Your task to perform on an android device: turn off data saver in the chrome app Image 0: 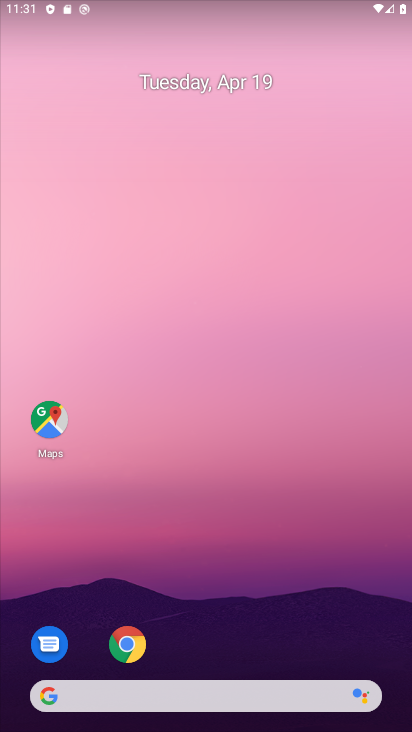
Step 0: click (125, 646)
Your task to perform on an android device: turn off data saver in the chrome app Image 1: 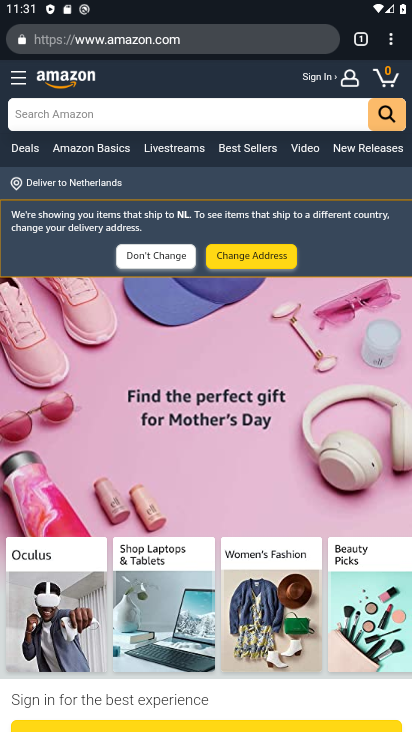
Step 1: click (391, 41)
Your task to perform on an android device: turn off data saver in the chrome app Image 2: 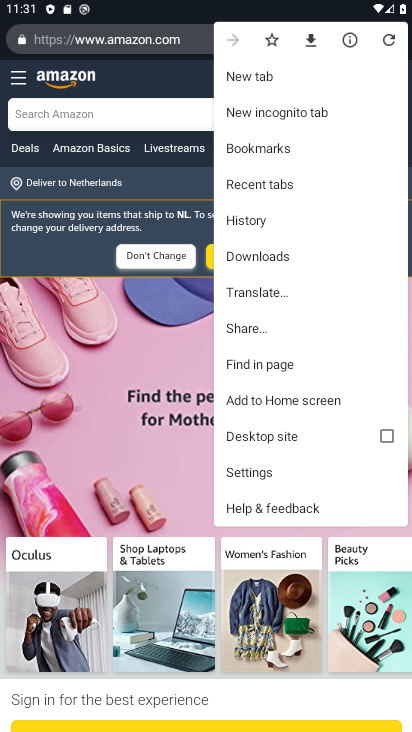
Step 2: click (249, 474)
Your task to perform on an android device: turn off data saver in the chrome app Image 3: 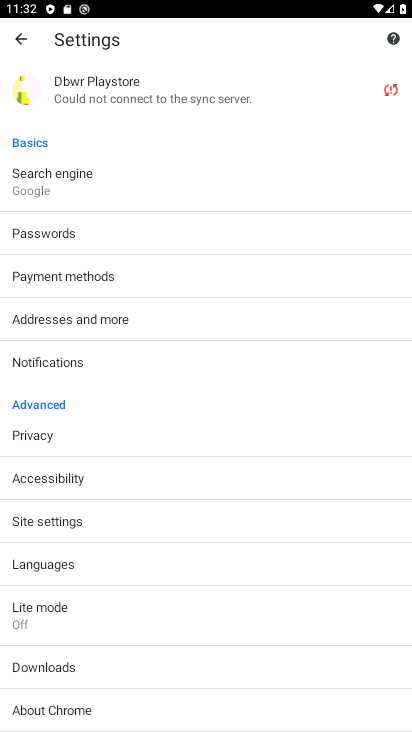
Step 3: click (47, 611)
Your task to perform on an android device: turn off data saver in the chrome app Image 4: 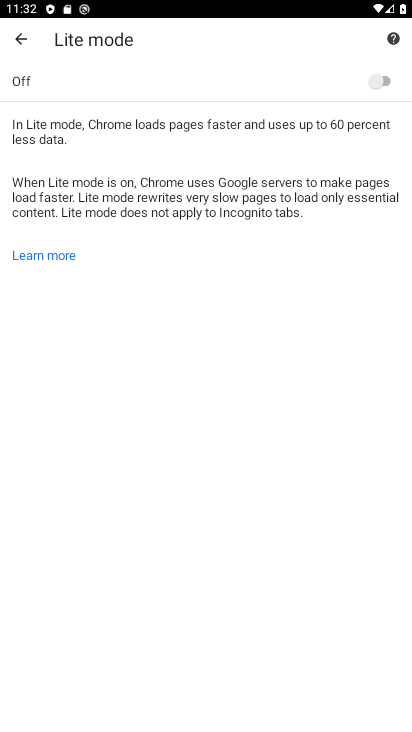
Step 4: task complete